Your task to perform on an android device: Open location settings Image 0: 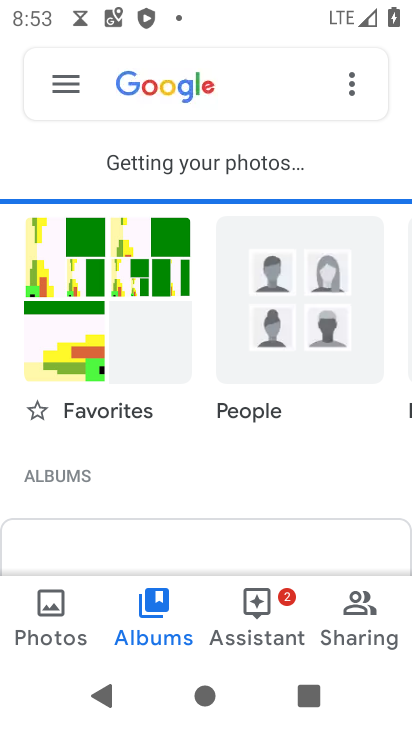
Step 0: press home button
Your task to perform on an android device: Open location settings Image 1: 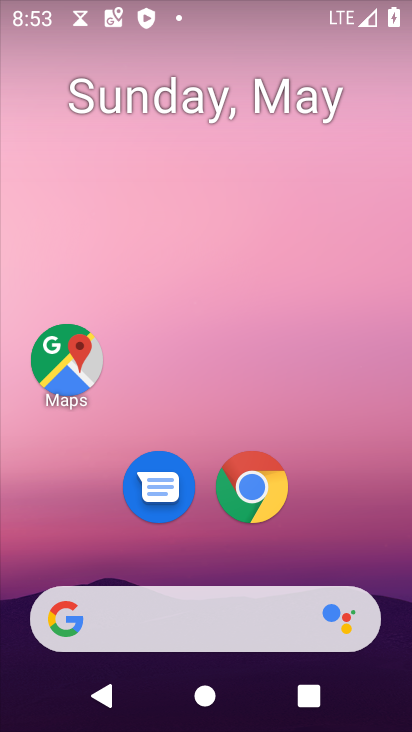
Step 1: drag from (365, 530) to (368, 168)
Your task to perform on an android device: Open location settings Image 2: 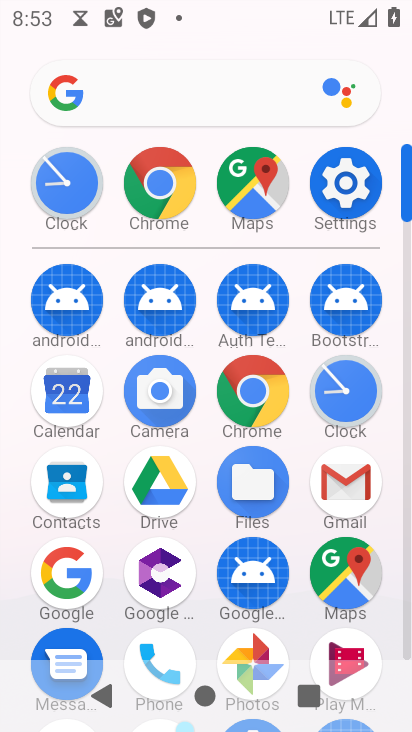
Step 2: click (334, 164)
Your task to perform on an android device: Open location settings Image 3: 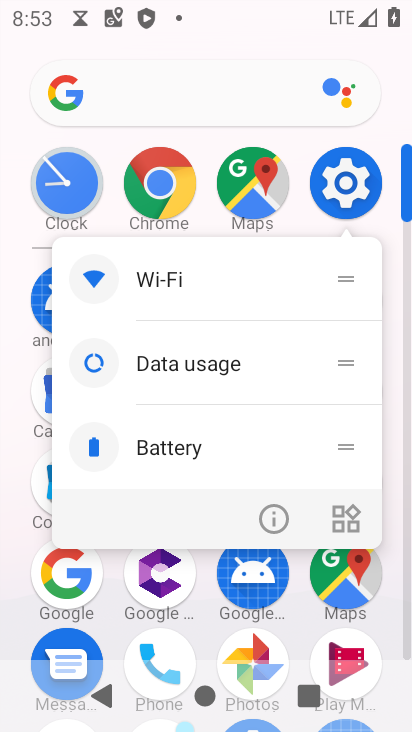
Step 3: click (335, 164)
Your task to perform on an android device: Open location settings Image 4: 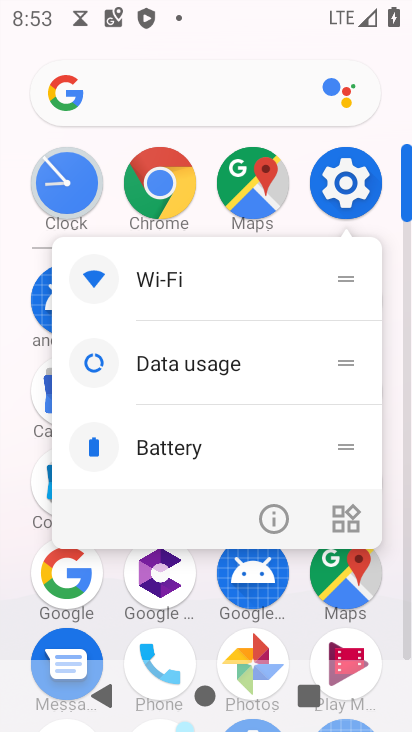
Step 4: click (343, 188)
Your task to perform on an android device: Open location settings Image 5: 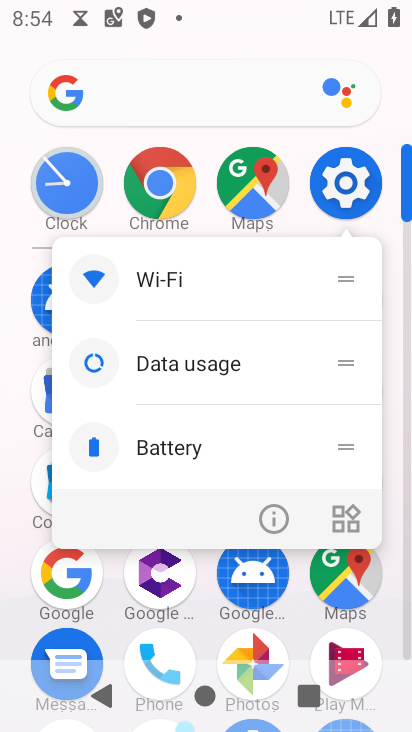
Step 5: click (343, 188)
Your task to perform on an android device: Open location settings Image 6: 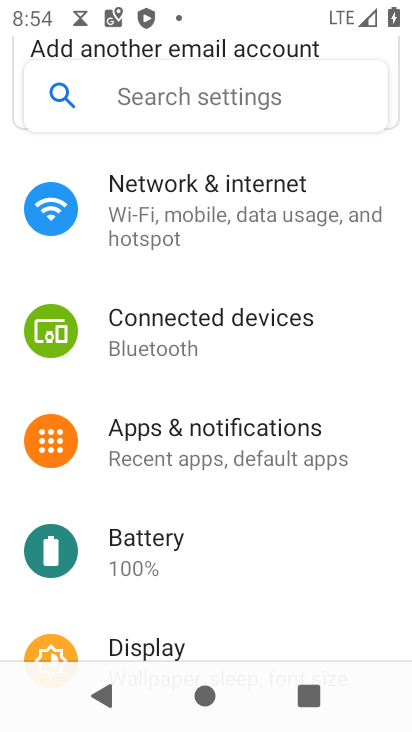
Step 6: drag from (166, 564) to (219, 236)
Your task to perform on an android device: Open location settings Image 7: 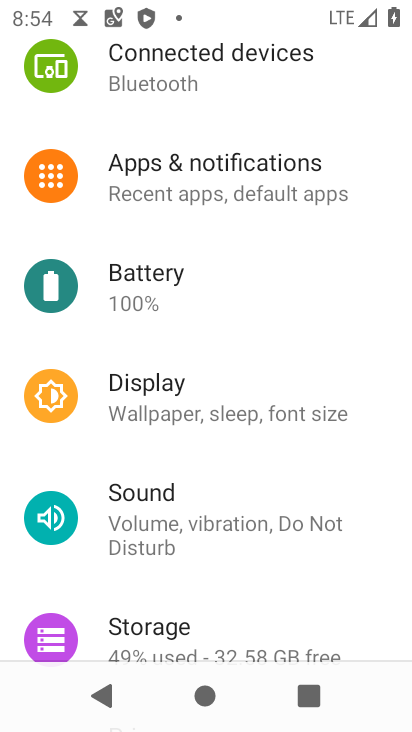
Step 7: drag from (298, 539) to (343, 267)
Your task to perform on an android device: Open location settings Image 8: 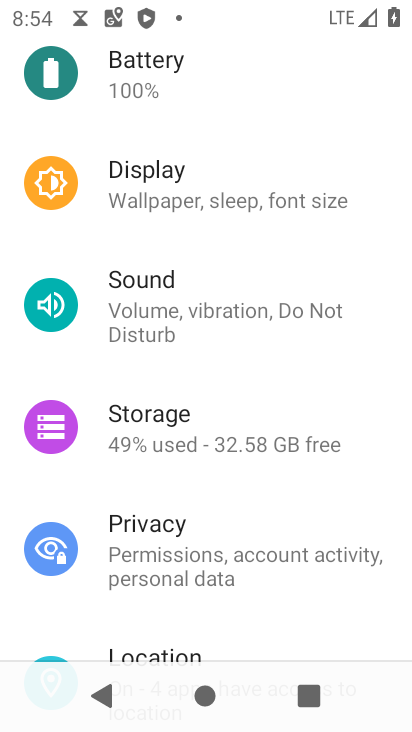
Step 8: drag from (244, 584) to (256, 291)
Your task to perform on an android device: Open location settings Image 9: 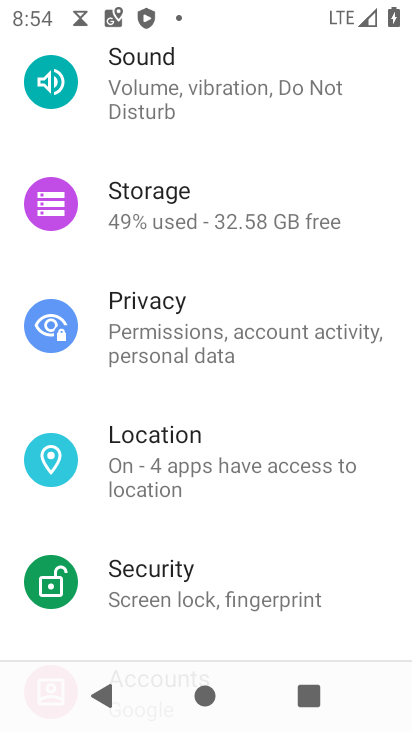
Step 9: click (209, 444)
Your task to perform on an android device: Open location settings Image 10: 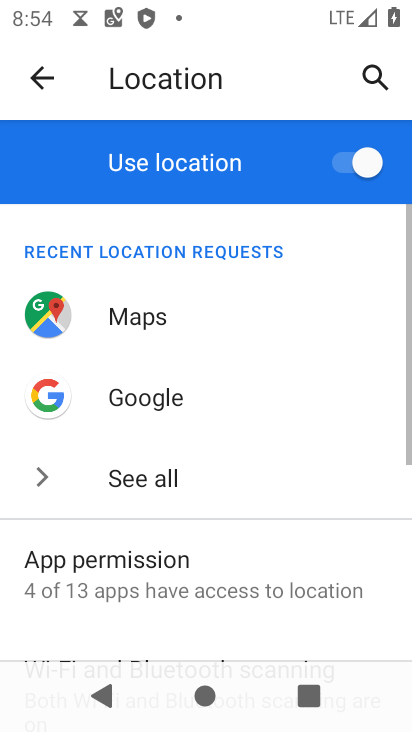
Step 10: task complete